Your task to perform on an android device: turn notification dots off Image 0: 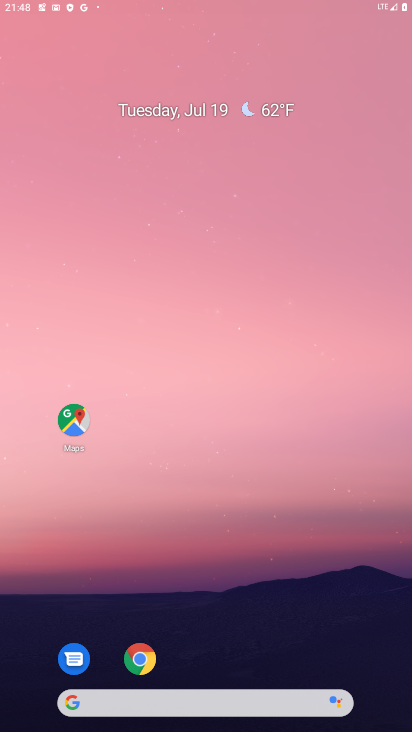
Step 0: press home button
Your task to perform on an android device: turn notification dots off Image 1: 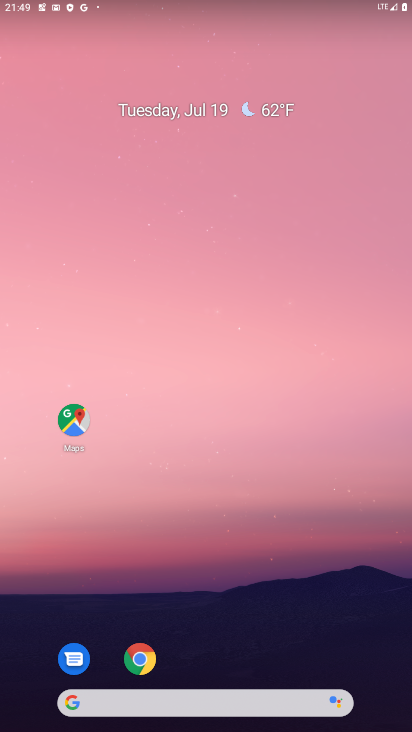
Step 1: drag from (246, 709) to (340, 58)
Your task to perform on an android device: turn notification dots off Image 2: 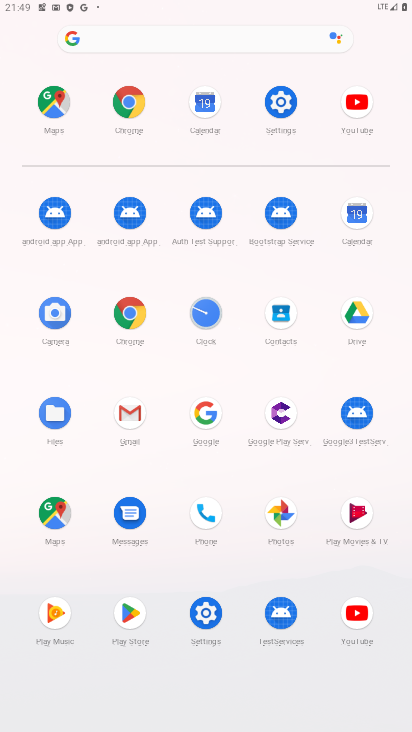
Step 2: click (191, 620)
Your task to perform on an android device: turn notification dots off Image 3: 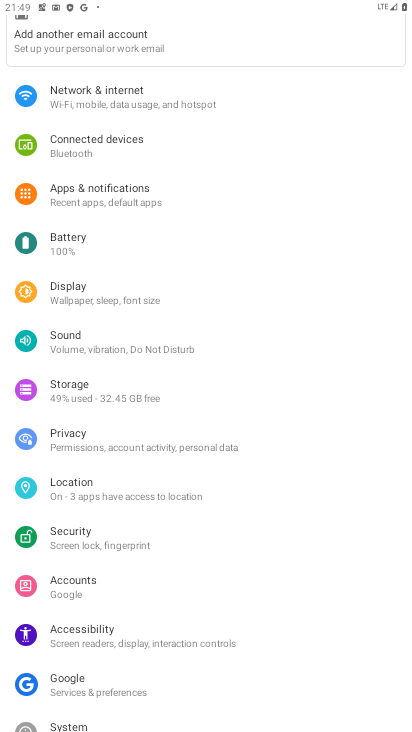
Step 3: click (68, 184)
Your task to perform on an android device: turn notification dots off Image 4: 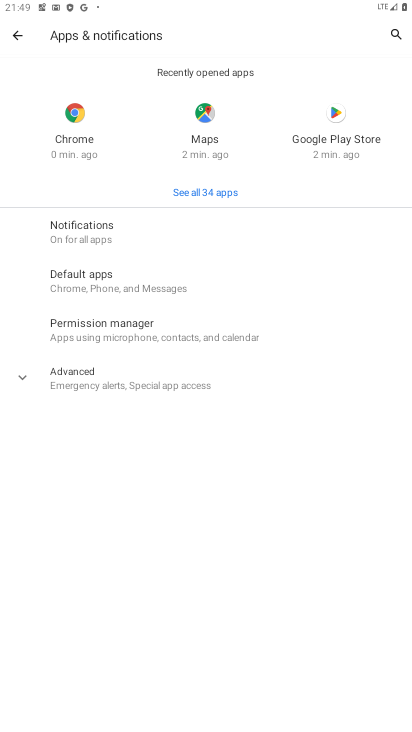
Step 4: click (60, 230)
Your task to perform on an android device: turn notification dots off Image 5: 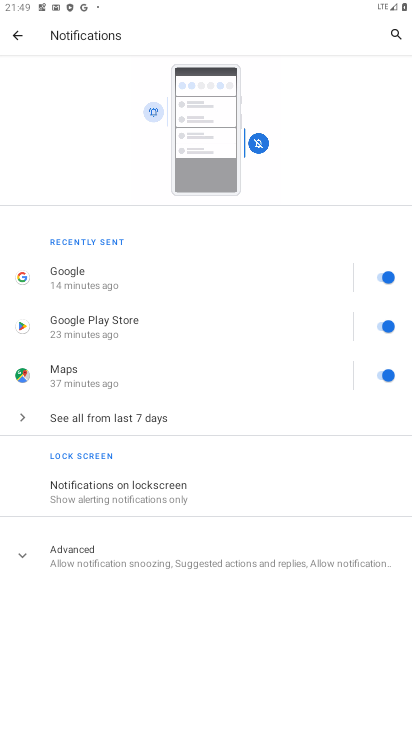
Step 5: click (182, 557)
Your task to perform on an android device: turn notification dots off Image 6: 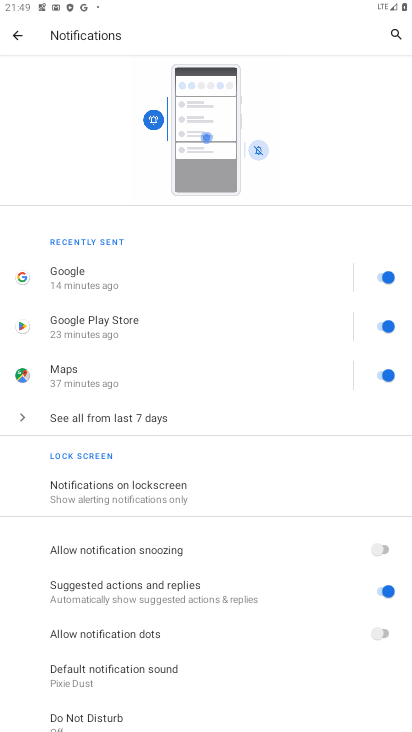
Step 6: task complete